Your task to perform on an android device: Open accessibility settings Image 0: 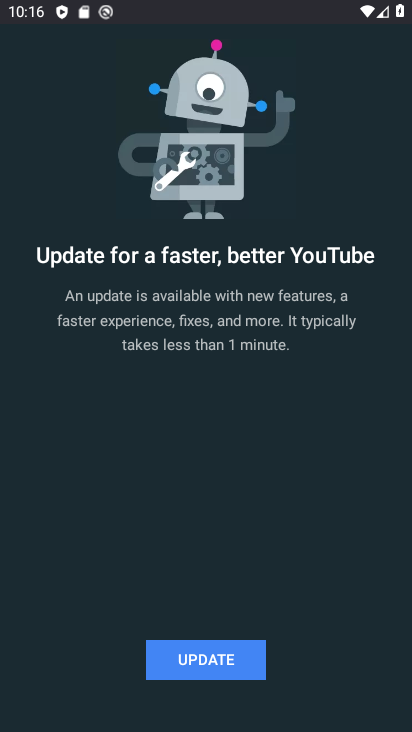
Step 0: task complete